Your task to perform on an android device: turn pop-ups on in chrome Image 0: 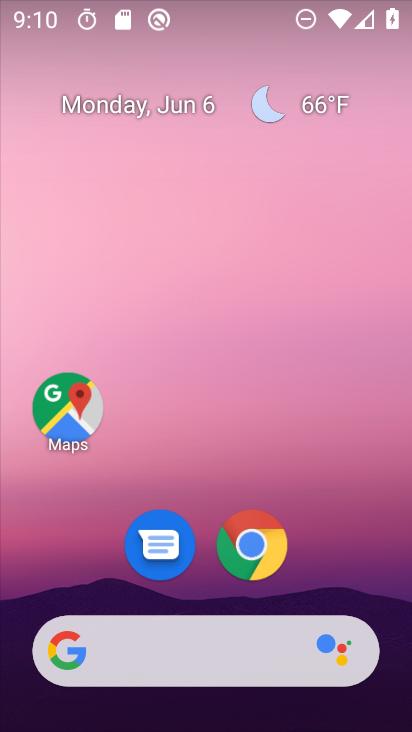
Step 0: click (273, 540)
Your task to perform on an android device: turn pop-ups on in chrome Image 1: 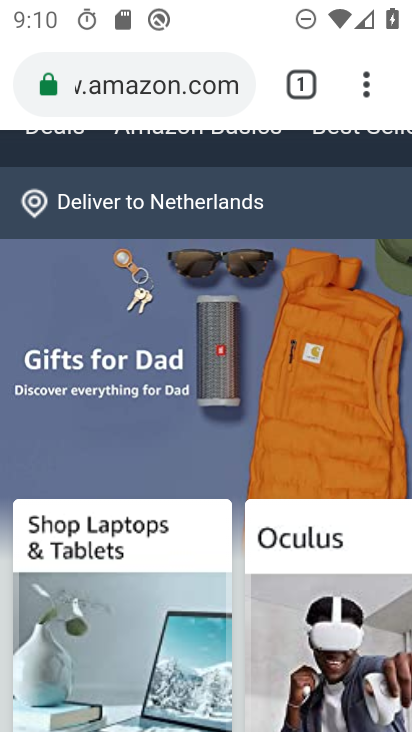
Step 1: click (368, 92)
Your task to perform on an android device: turn pop-ups on in chrome Image 2: 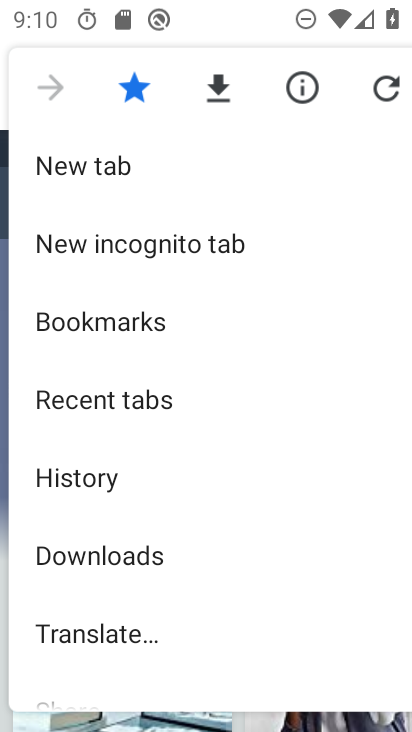
Step 2: drag from (117, 531) to (173, 148)
Your task to perform on an android device: turn pop-ups on in chrome Image 3: 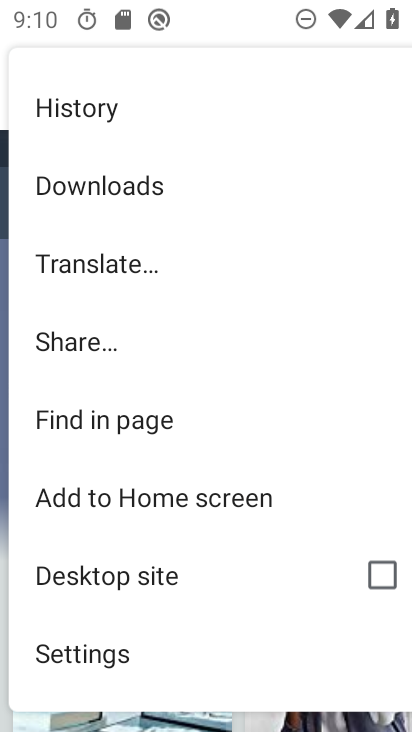
Step 3: drag from (121, 617) to (156, 367)
Your task to perform on an android device: turn pop-ups on in chrome Image 4: 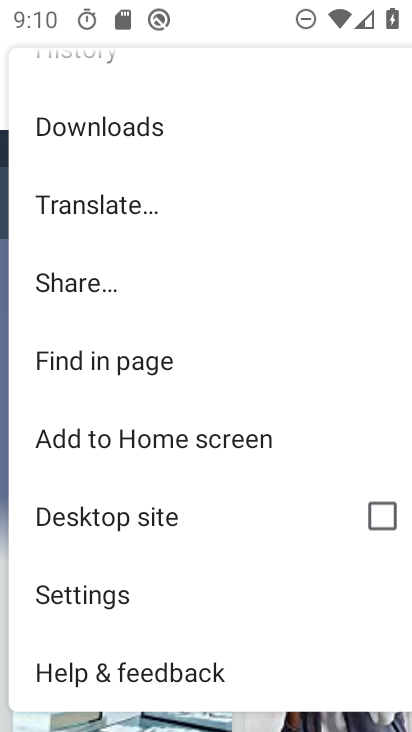
Step 4: click (105, 593)
Your task to perform on an android device: turn pop-ups on in chrome Image 5: 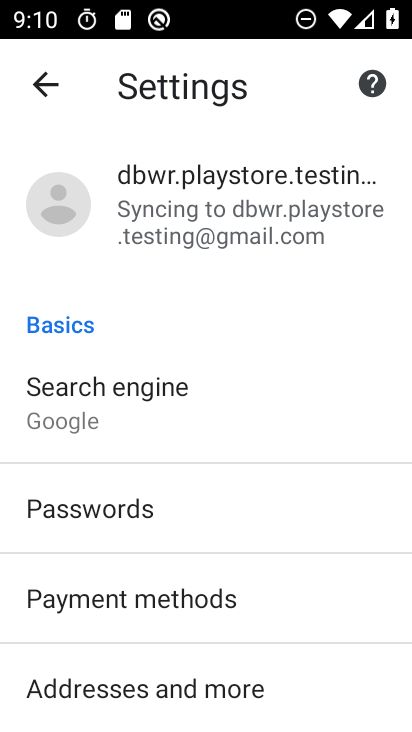
Step 5: drag from (191, 582) to (237, 158)
Your task to perform on an android device: turn pop-ups on in chrome Image 6: 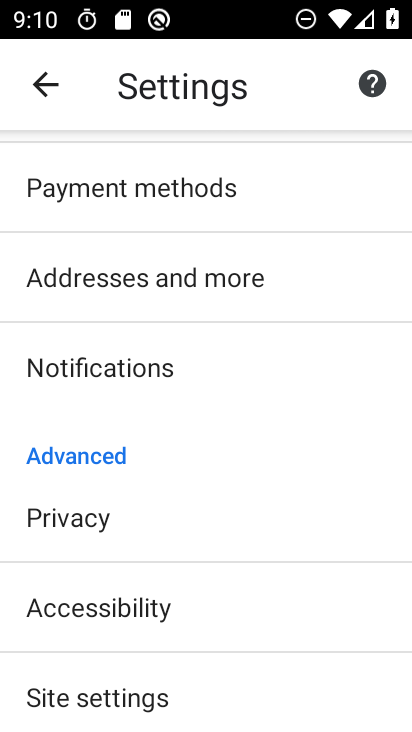
Step 6: drag from (151, 566) to (172, 329)
Your task to perform on an android device: turn pop-ups on in chrome Image 7: 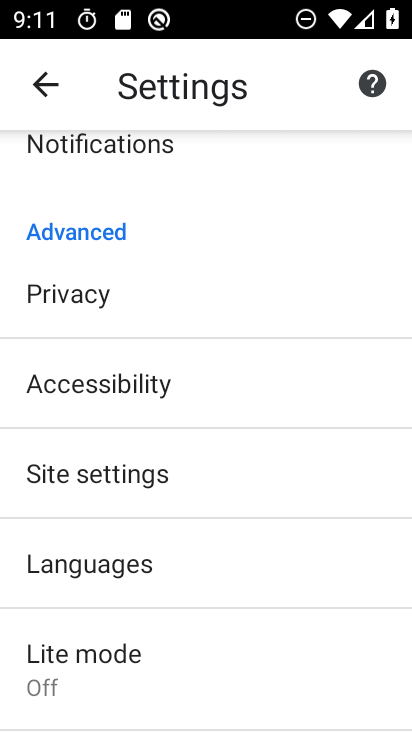
Step 7: click (119, 472)
Your task to perform on an android device: turn pop-ups on in chrome Image 8: 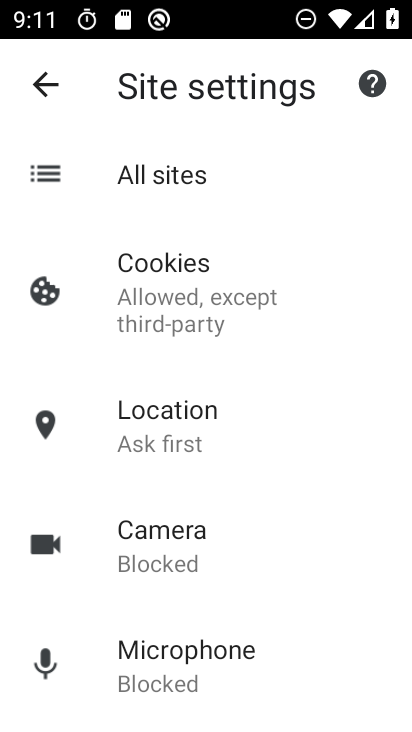
Step 8: drag from (171, 571) to (242, 261)
Your task to perform on an android device: turn pop-ups on in chrome Image 9: 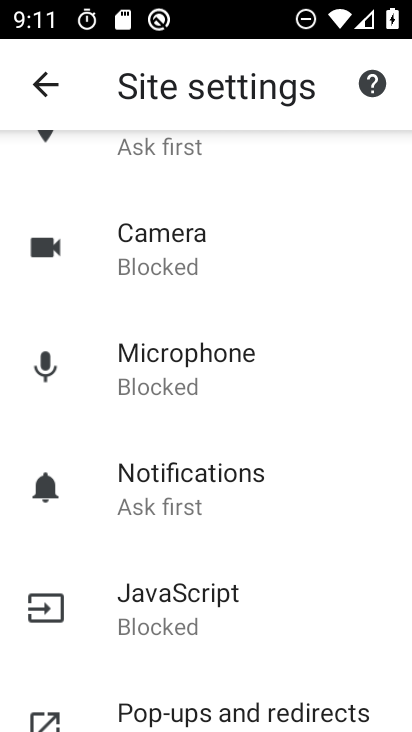
Step 9: drag from (222, 595) to (291, 273)
Your task to perform on an android device: turn pop-ups on in chrome Image 10: 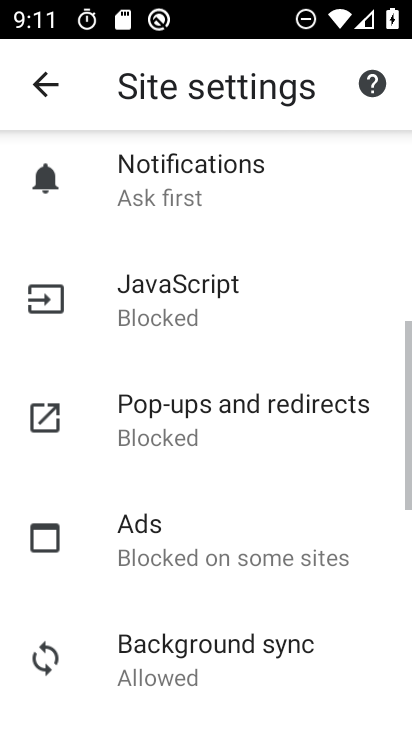
Step 10: click (191, 420)
Your task to perform on an android device: turn pop-ups on in chrome Image 11: 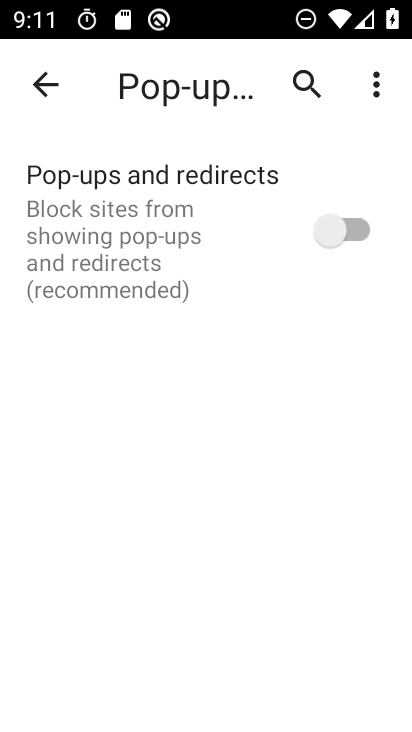
Step 11: click (378, 232)
Your task to perform on an android device: turn pop-ups on in chrome Image 12: 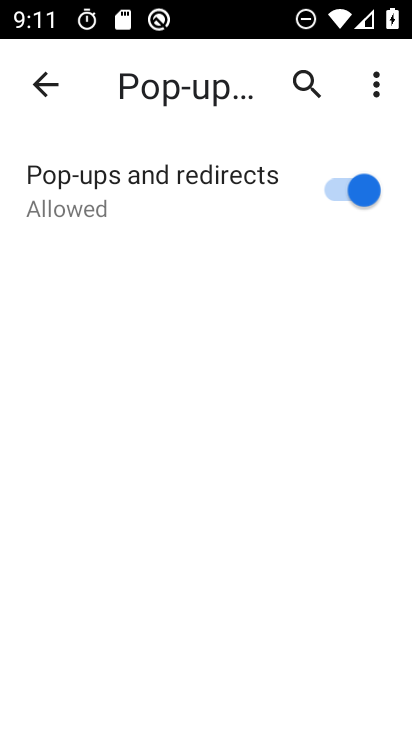
Step 12: task complete